Your task to perform on an android device: create a new album in the google photos Image 0: 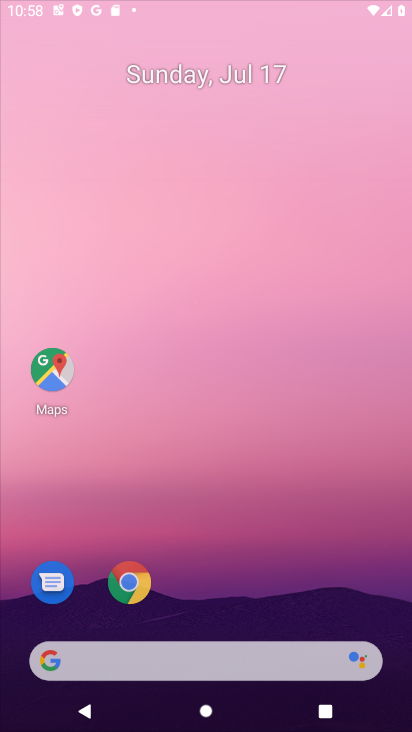
Step 0: press home button
Your task to perform on an android device: create a new album in the google photos Image 1: 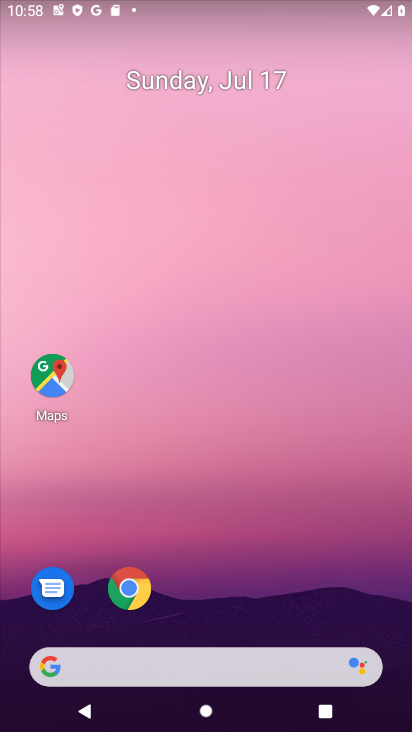
Step 1: drag from (210, 633) to (223, 0)
Your task to perform on an android device: create a new album in the google photos Image 2: 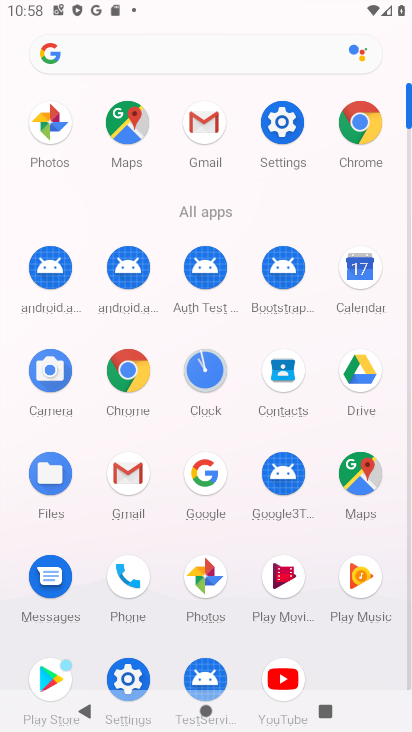
Step 2: click (200, 571)
Your task to perform on an android device: create a new album in the google photos Image 3: 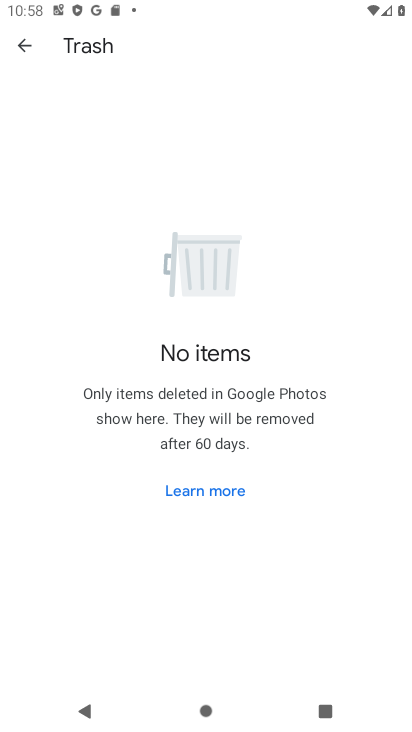
Step 3: click (22, 45)
Your task to perform on an android device: create a new album in the google photos Image 4: 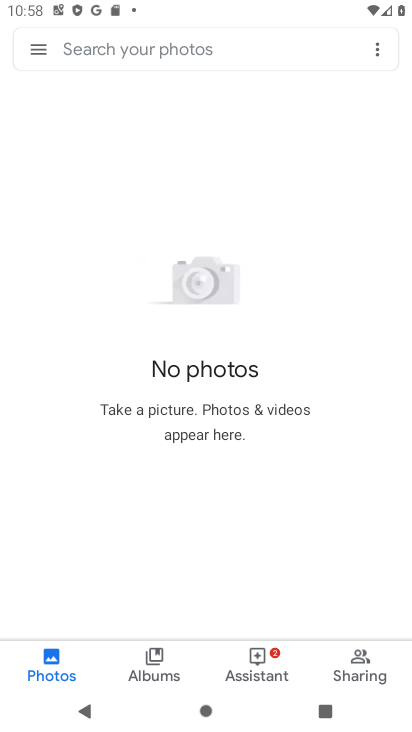
Step 4: click (155, 650)
Your task to perform on an android device: create a new album in the google photos Image 5: 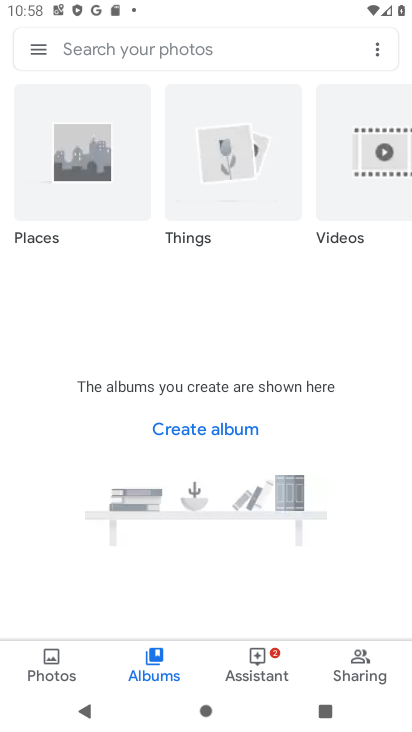
Step 5: click (381, 48)
Your task to perform on an android device: create a new album in the google photos Image 6: 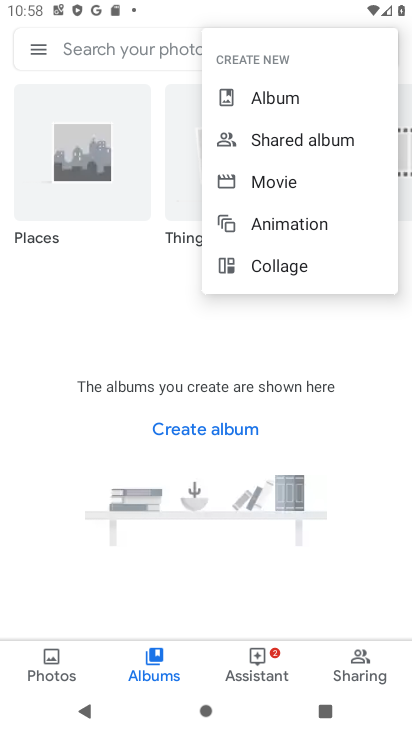
Step 6: click (268, 98)
Your task to perform on an android device: create a new album in the google photos Image 7: 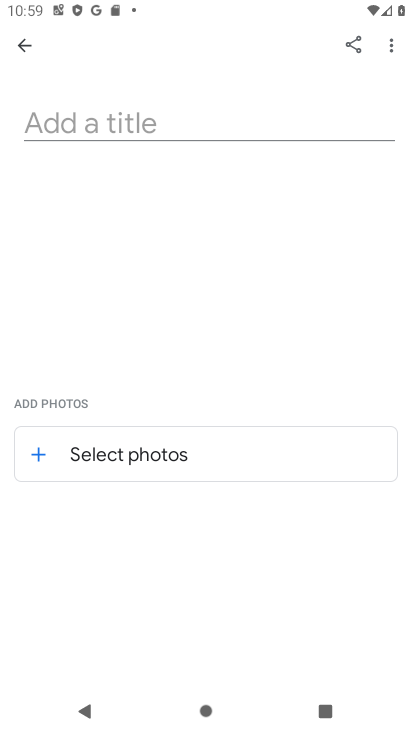
Step 7: click (37, 461)
Your task to perform on an android device: create a new album in the google photos Image 8: 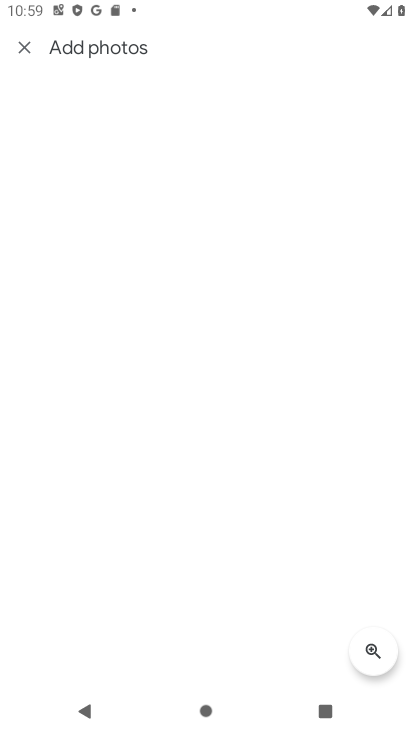
Step 8: task complete